Your task to perform on an android device: Clear all items from cart on walmart.com. Image 0: 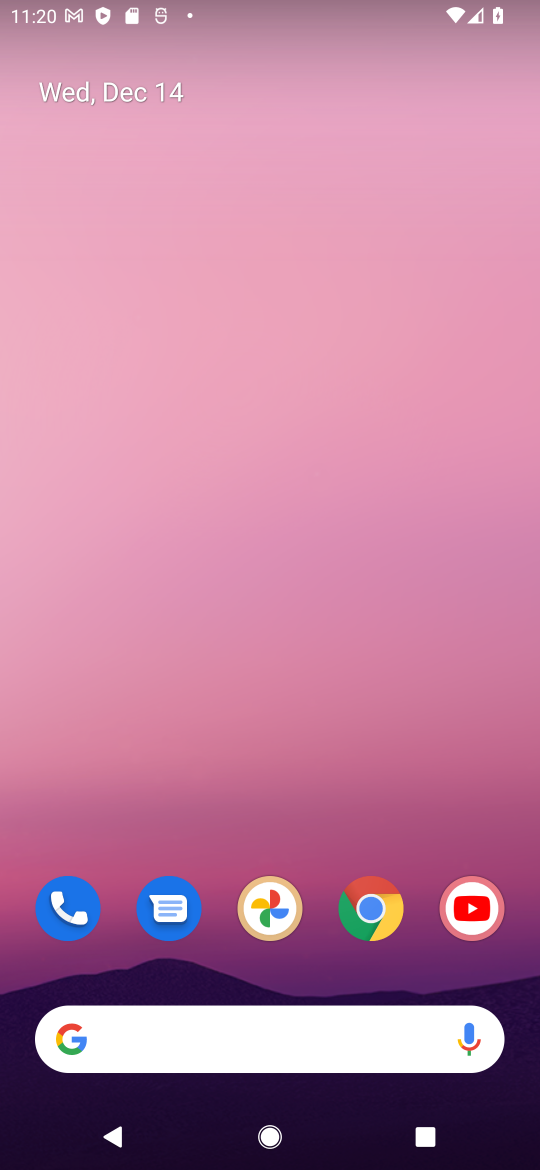
Step 0: click (371, 921)
Your task to perform on an android device: Clear all items from cart on walmart.com. Image 1: 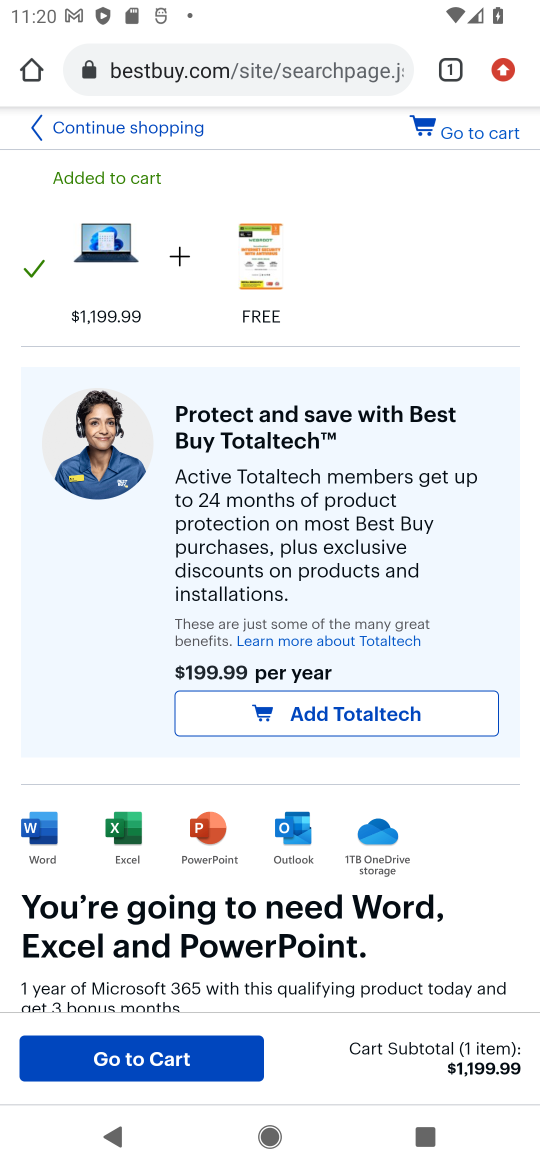
Step 1: click (188, 84)
Your task to perform on an android device: Clear all items from cart on walmart.com. Image 2: 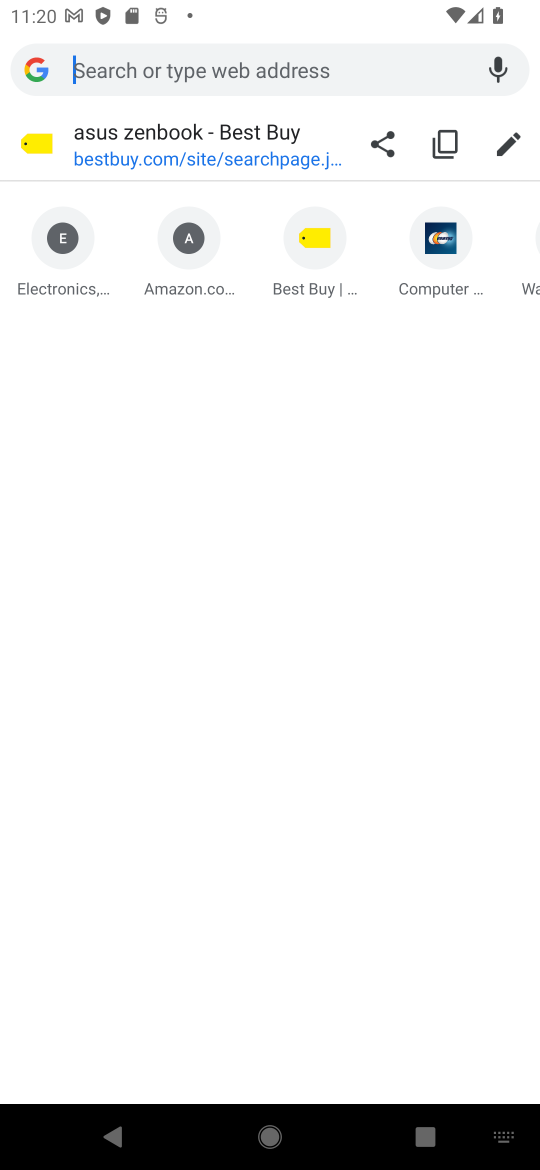
Step 2: type "walmart.com"
Your task to perform on an android device: Clear all items from cart on walmart.com. Image 3: 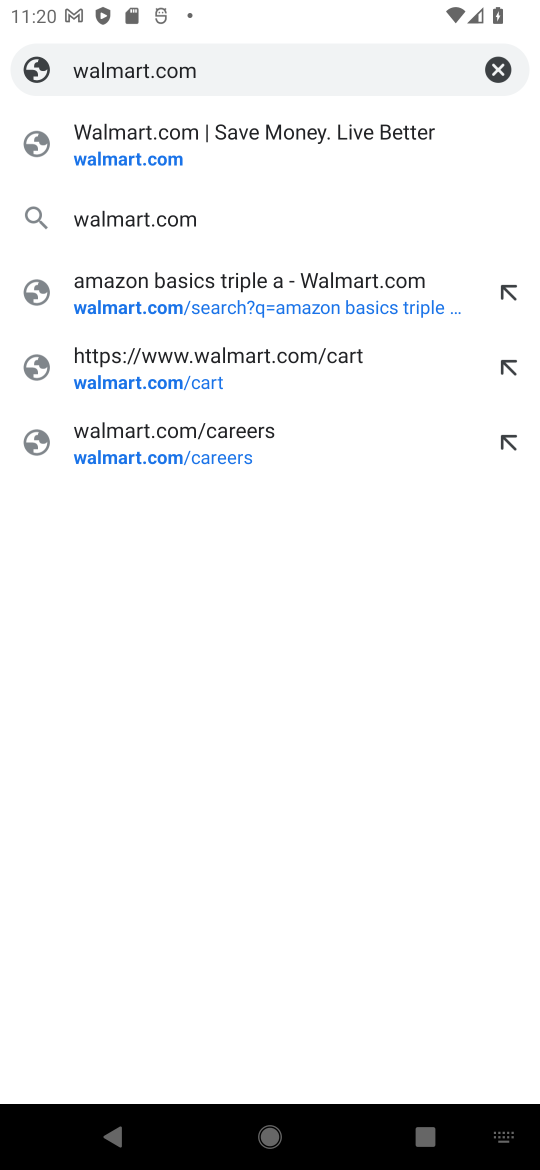
Step 3: click (115, 152)
Your task to perform on an android device: Clear all items from cart on walmart.com. Image 4: 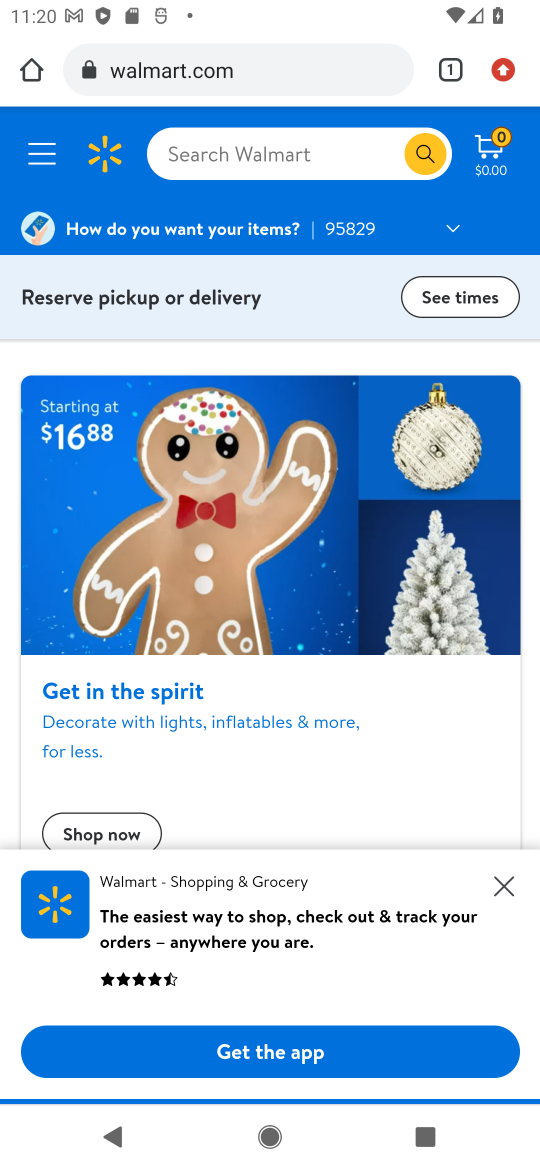
Step 4: click (497, 156)
Your task to perform on an android device: Clear all items from cart on walmart.com. Image 5: 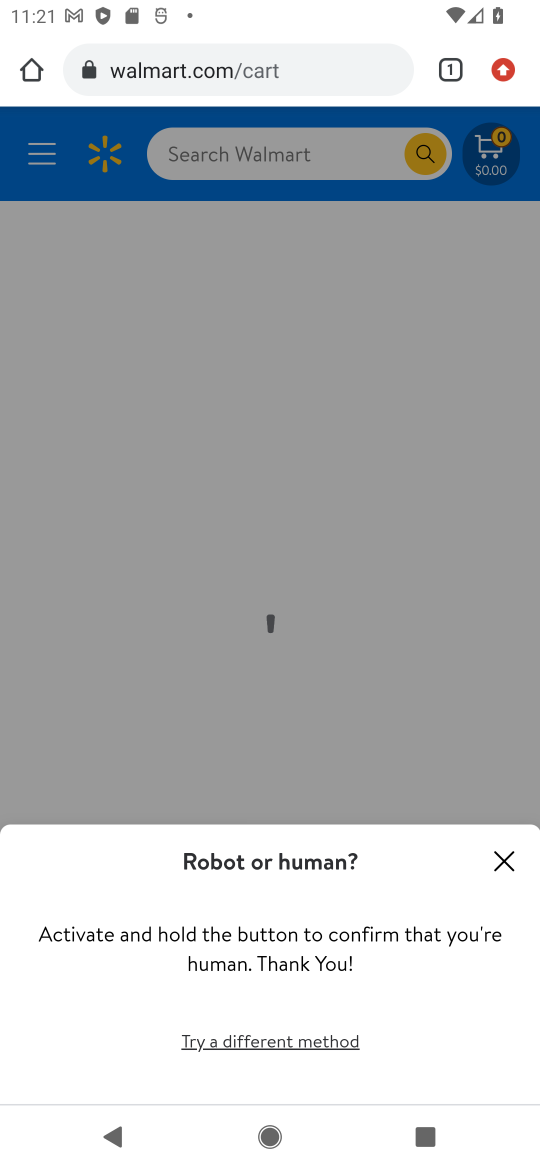
Step 5: click (517, 856)
Your task to perform on an android device: Clear all items from cart on walmart.com. Image 6: 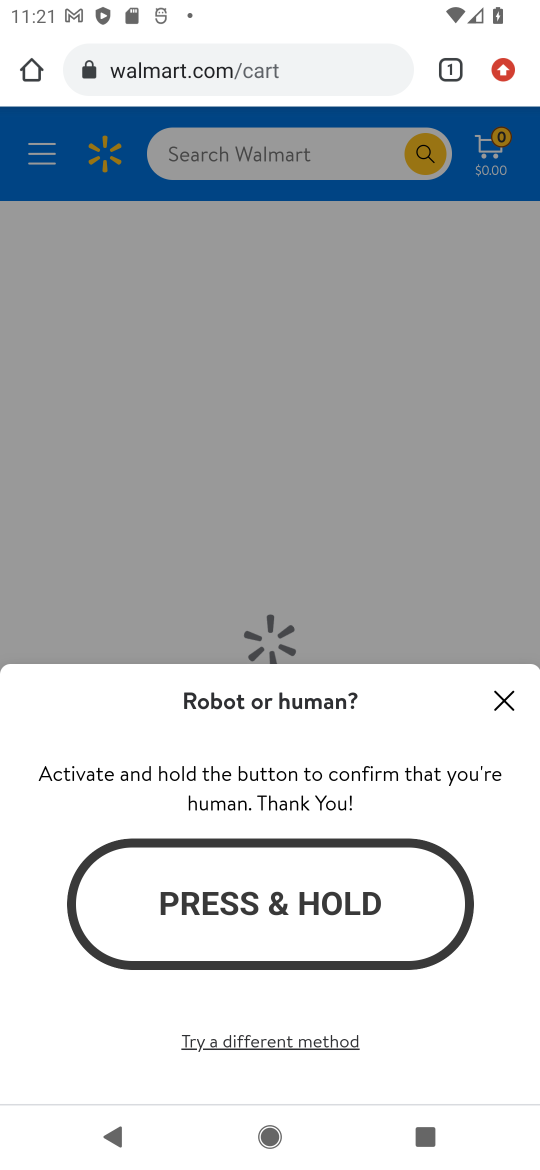
Step 6: click (229, 909)
Your task to perform on an android device: Clear all items from cart on walmart.com. Image 7: 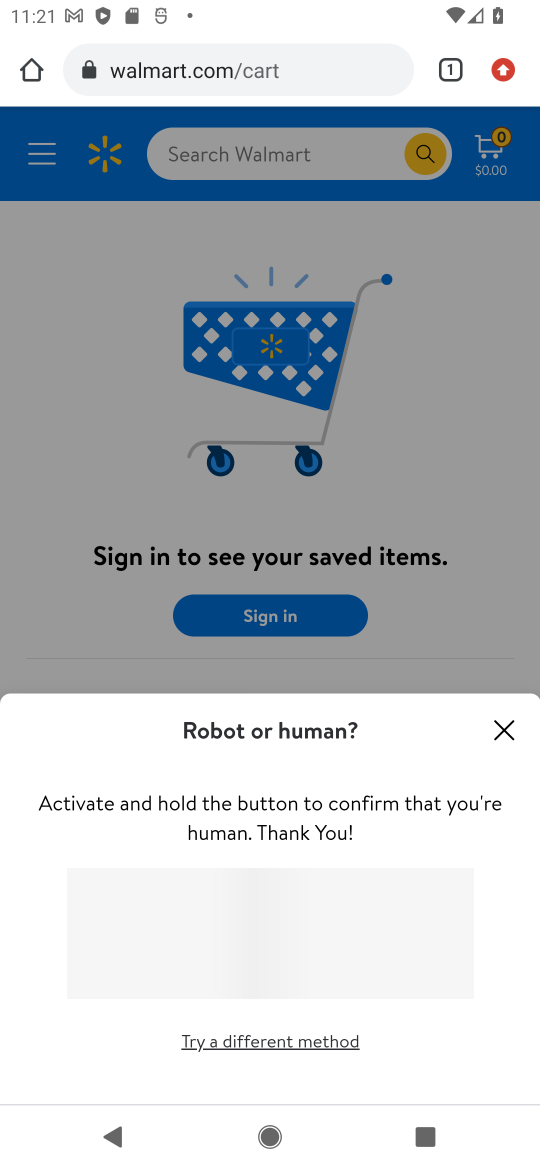
Step 7: click (509, 727)
Your task to perform on an android device: Clear all items from cart on walmart.com. Image 8: 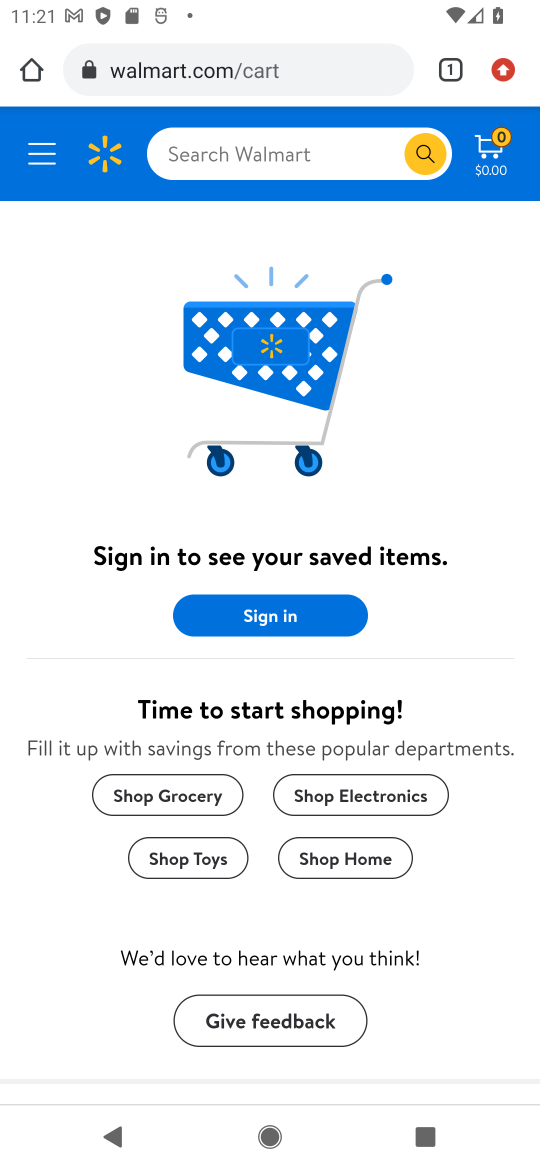
Step 8: task complete